Your task to perform on an android device: see tabs open on other devices in the chrome app Image 0: 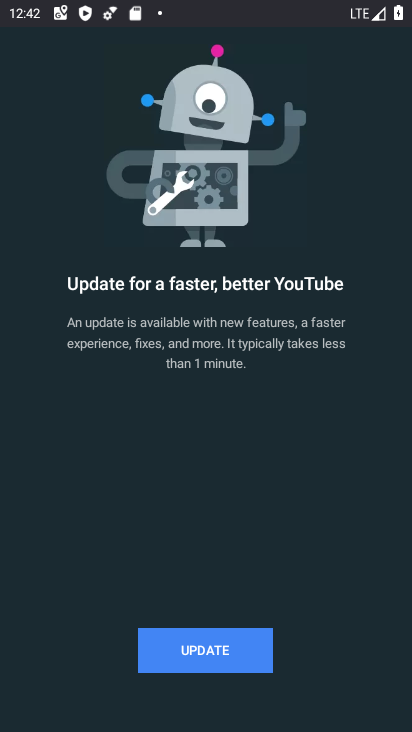
Step 0: press home button
Your task to perform on an android device: see tabs open on other devices in the chrome app Image 1: 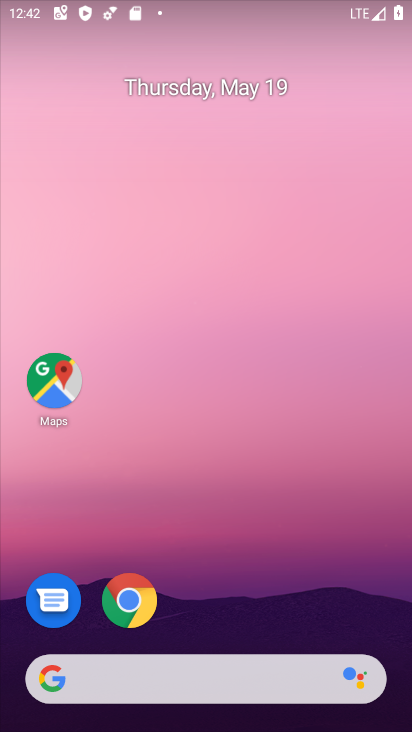
Step 1: click (141, 594)
Your task to perform on an android device: see tabs open on other devices in the chrome app Image 2: 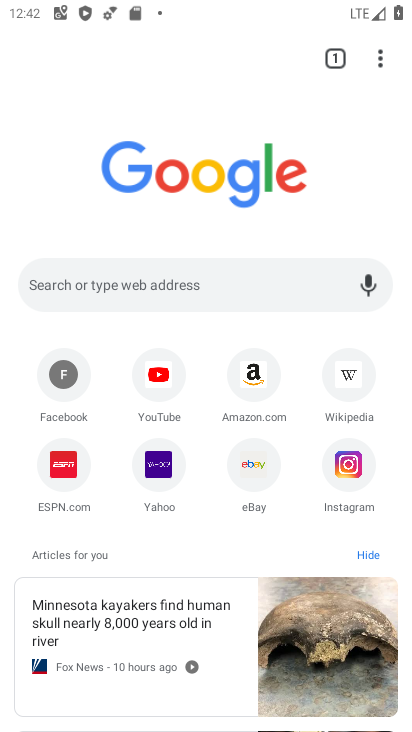
Step 2: click (379, 58)
Your task to perform on an android device: see tabs open on other devices in the chrome app Image 3: 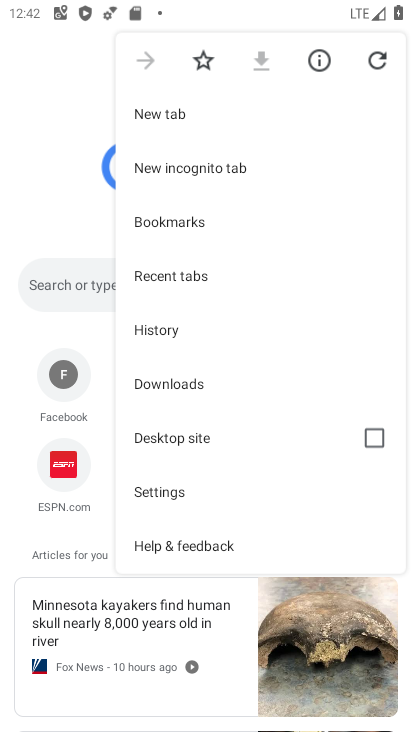
Step 3: drag from (228, 358) to (201, 173)
Your task to perform on an android device: see tabs open on other devices in the chrome app Image 4: 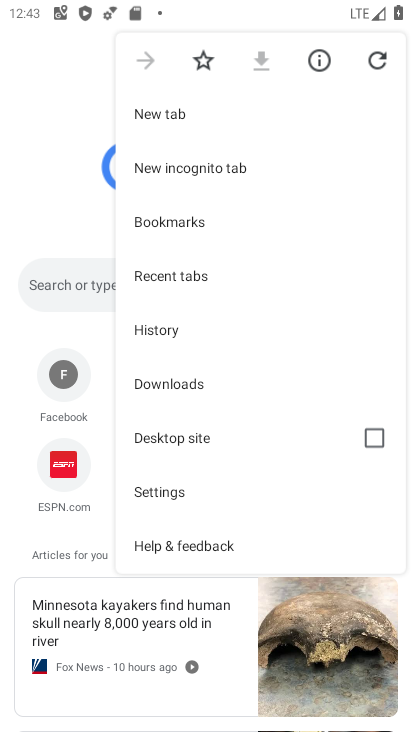
Step 4: click (184, 269)
Your task to perform on an android device: see tabs open on other devices in the chrome app Image 5: 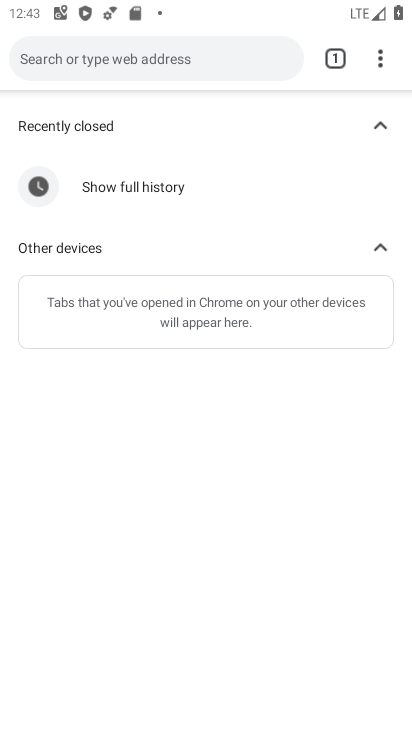
Step 5: task complete